Your task to perform on an android device: Open Android settings Image 0: 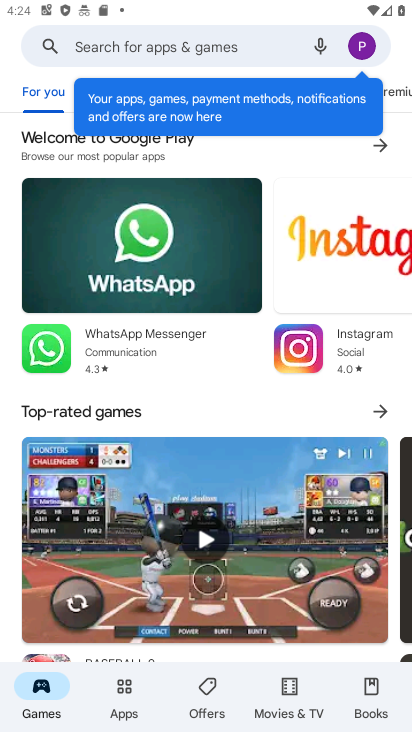
Step 0: press back button
Your task to perform on an android device: Open Android settings Image 1: 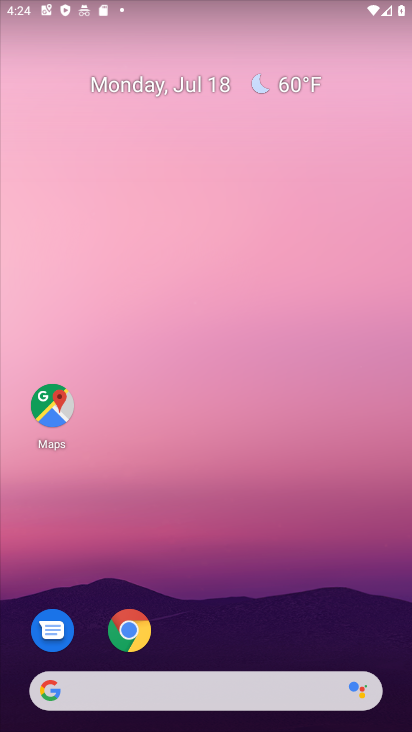
Step 1: drag from (257, 630) to (89, 125)
Your task to perform on an android device: Open Android settings Image 2: 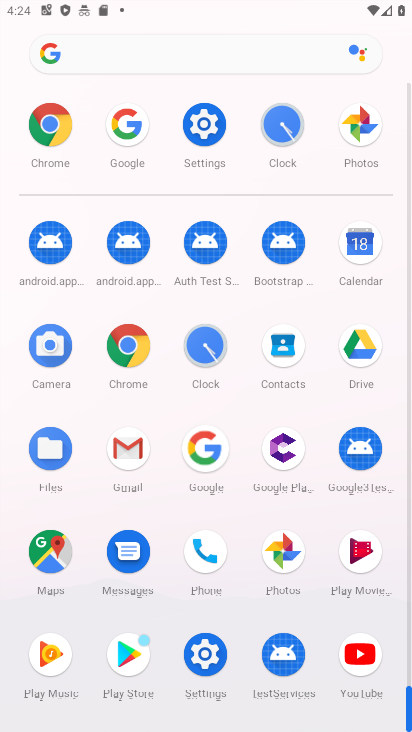
Step 2: click (192, 132)
Your task to perform on an android device: Open Android settings Image 3: 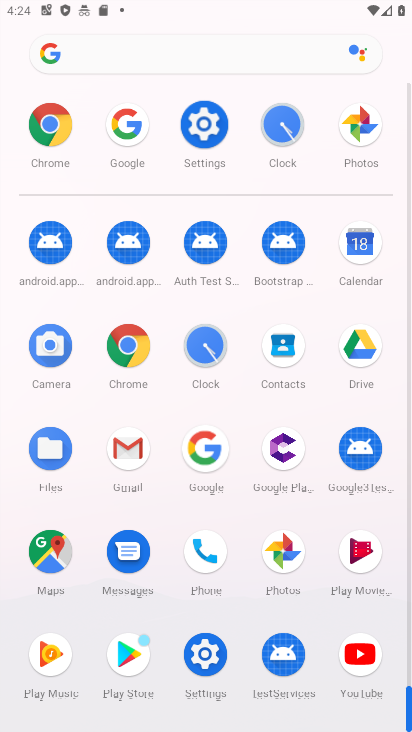
Step 3: click (195, 132)
Your task to perform on an android device: Open Android settings Image 4: 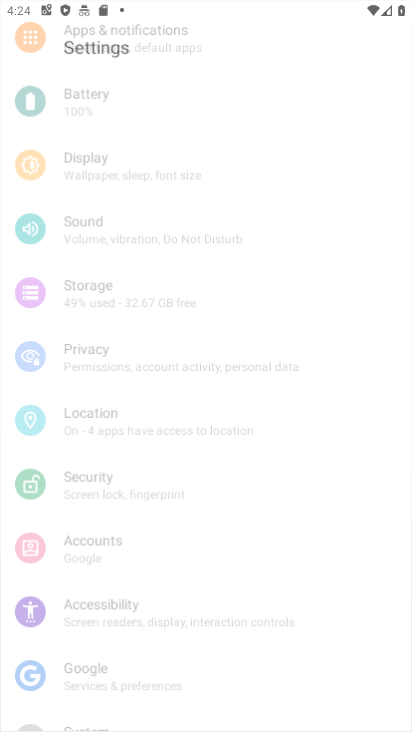
Step 4: click (197, 132)
Your task to perform on an android device: Open Android settings Image 5: 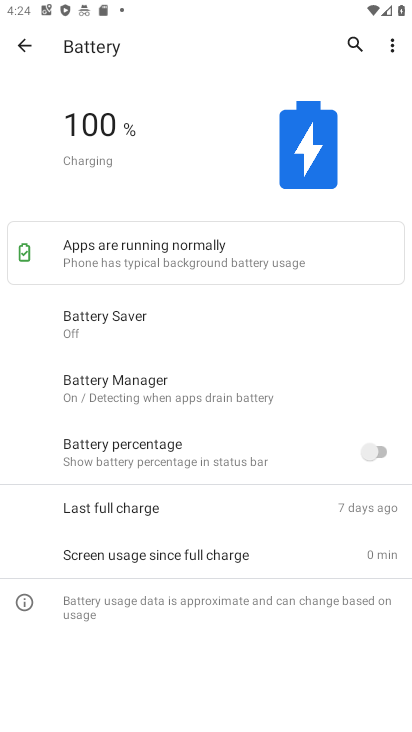
Step 5: click (26, 49)
Your task to perform on an android device: Open Android settings Image 6: 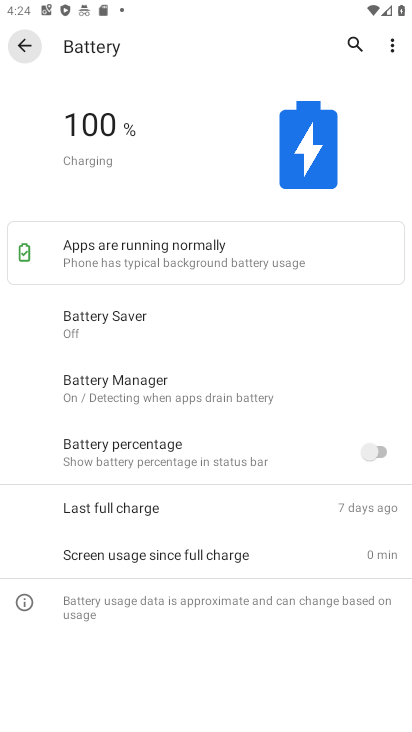
Step 6: click (26, 49)
Your task to perform on an android device: Open Android settings Image 7: 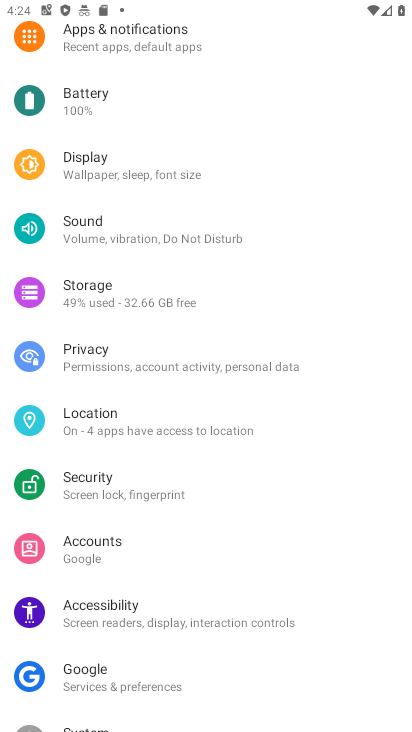
Step 7: drag from (75, 114) to (100, 326)
Your task to perform on an android device: Open Android settings Image 8: 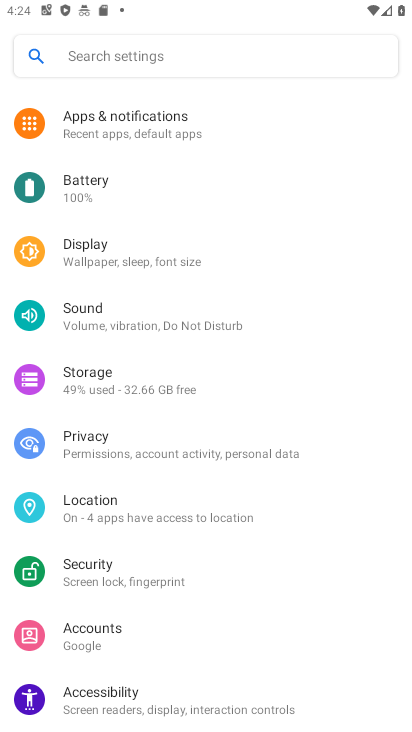
Step 8: drag from (40, 86) to (90, 291)
Your task to perform on an android device: Open Android settings Image 9: 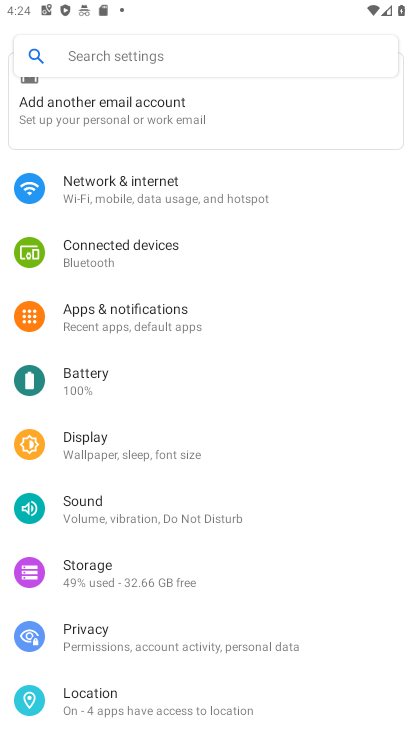
Step 9: drag from (102, 161) to (134, 286)
Your task to perform on an android device: Open Android settings Image 10: 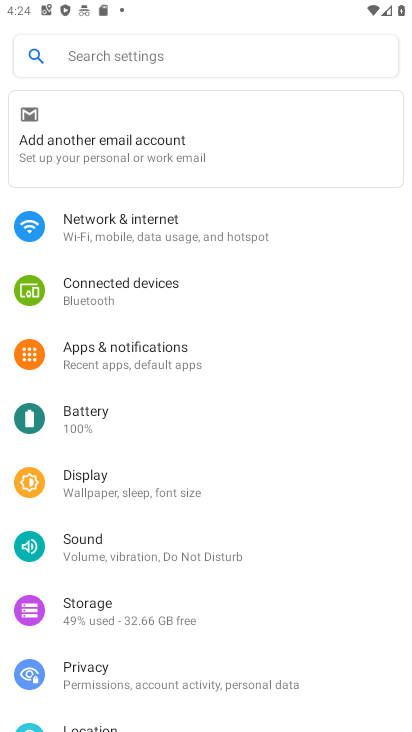
Step 10: drag from (159, 495) to (142, 351)
Your task to perform on an android device: Open Android settings Image 11: 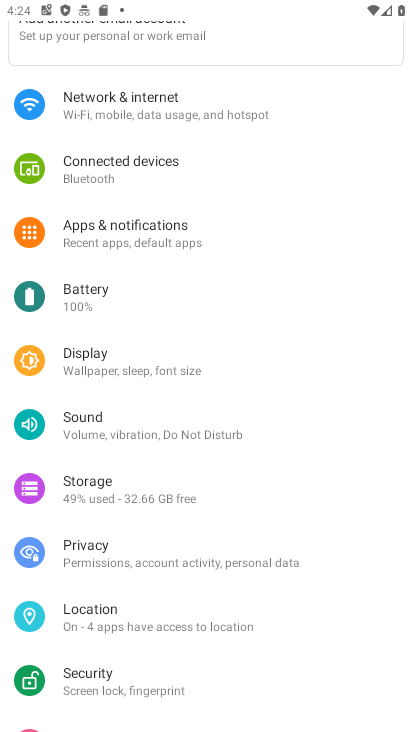
Step 11: drag from (183, 599) to (183, 297)
Your task to perform on an android device: Open Android settings Image 12: 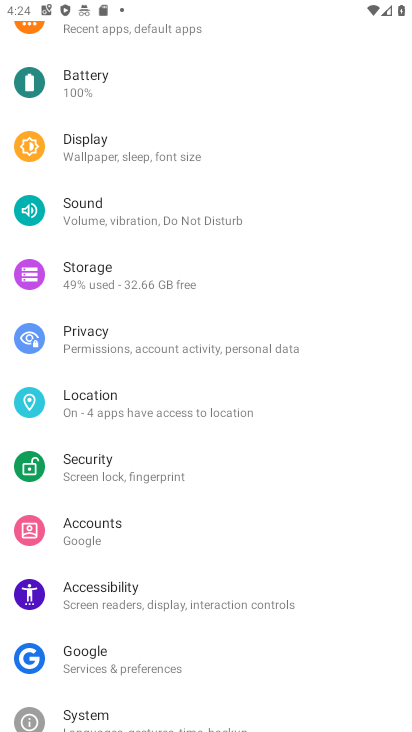
Step 12: drag from (197, 566) to (197, 336)
Your task to perform on an android device: Open Android settings Image 13: 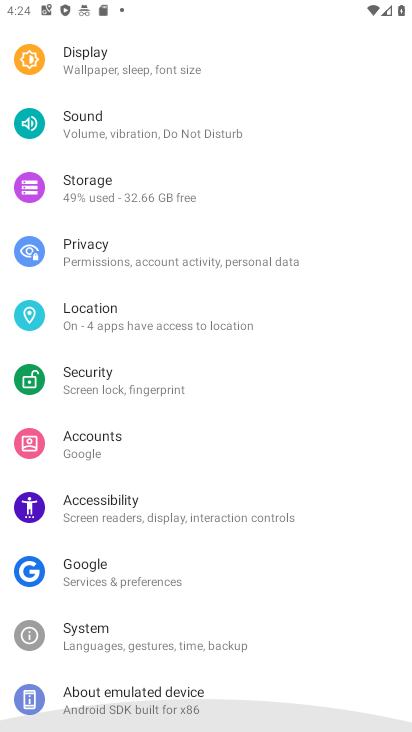
Step 13: drag from (127, 691) to (143, 356)
Your task to perform on an android device: Open Android settings Image 14: 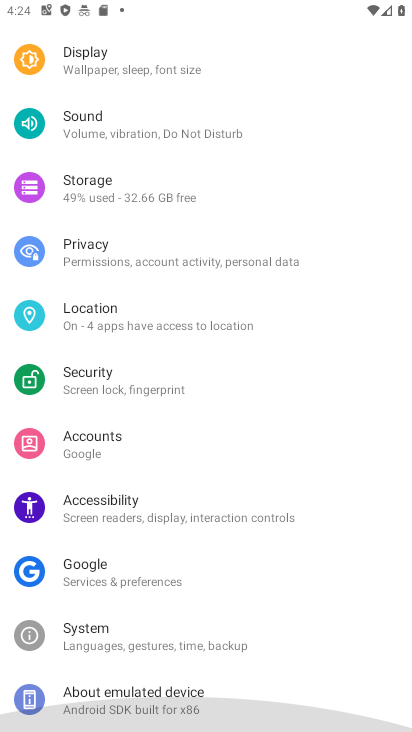
Step 14: drag from (180, 626) to (164, 370)
Your task to perform on an android device: Open Android settings Image 15: 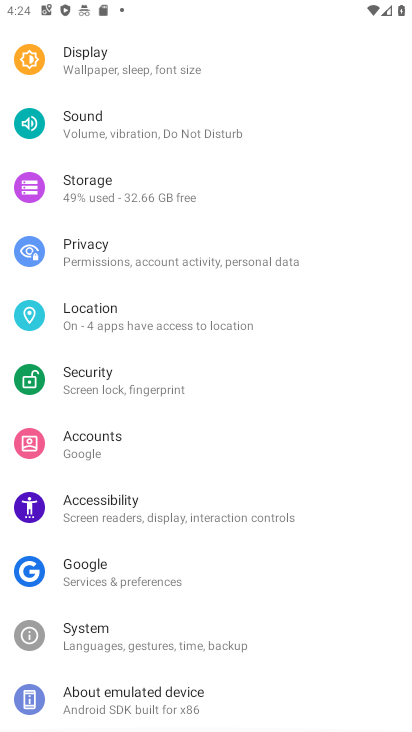
Step 15: click (138, 712)
Your task to perform on an android device: Open Android settings Image 16: 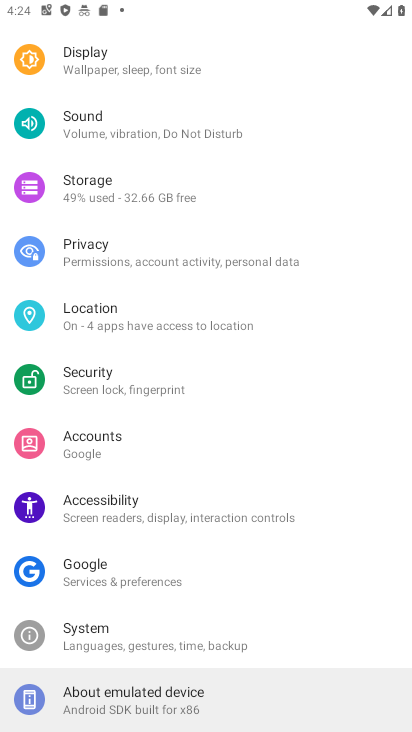
Step 16: click (134, 706)
Your task to perform on an android device: Open Android settings Image 17: 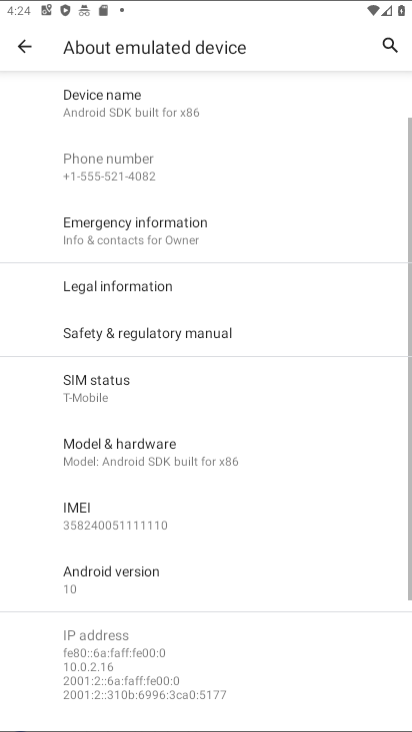
Step 17: click (134, 706)
Your task to perform on an android device: Open Android settings Image 18: 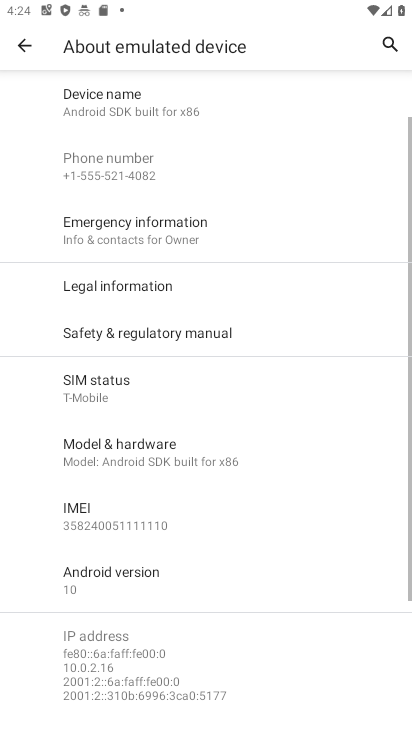
Step 18: click (134, 705)
Your task to perform on an android device: Open Android settings Image 19: 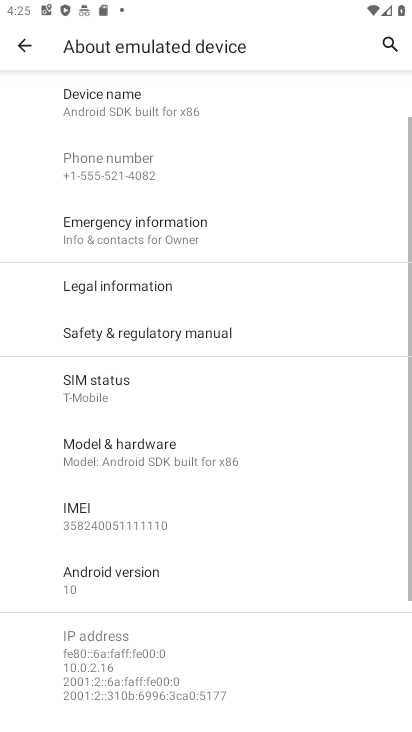
Step 19: task complete